Your task to perform on an android device: Search for Mexican restaurants on Maps Image 0: 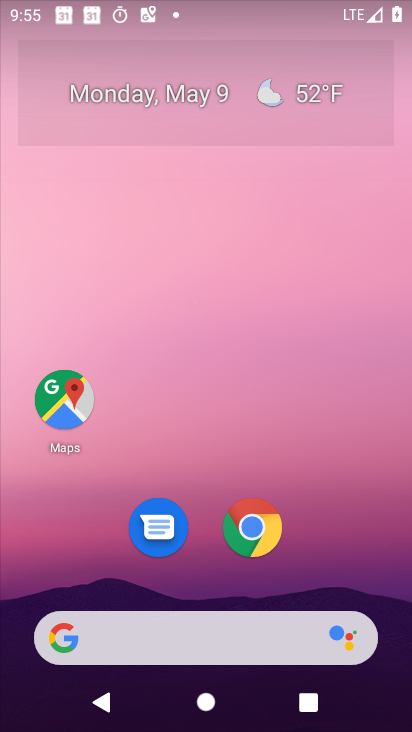
Step 0: drag from (353, 571) to (300, 147)
Your task to perform on an android device: Search for Mexican restaurants on Maps Image 1: 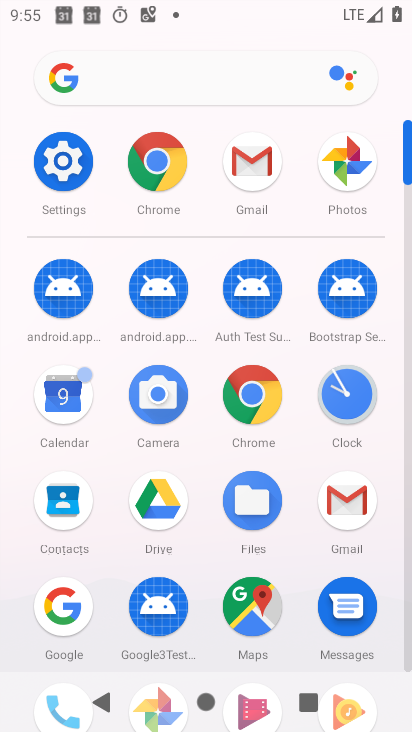
Step 1: click (268, 596)
Your task to perform on an android device: Search for Mexican restaurants on Maps Image 2: 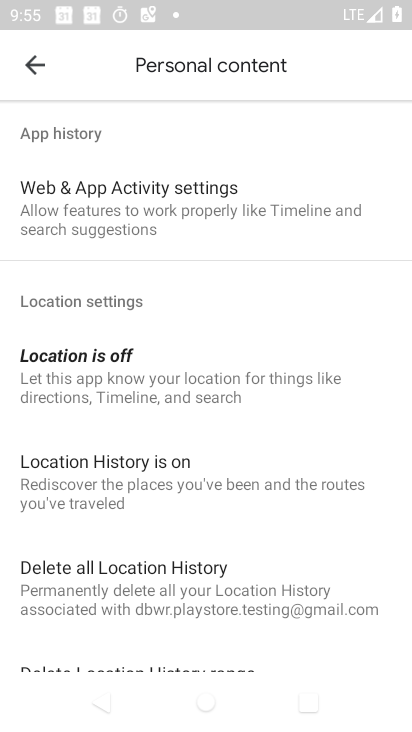
Step 2: click (43, 76)
Your task to perform on an android device: Search for Mexican restaurants on Maps Image 3: 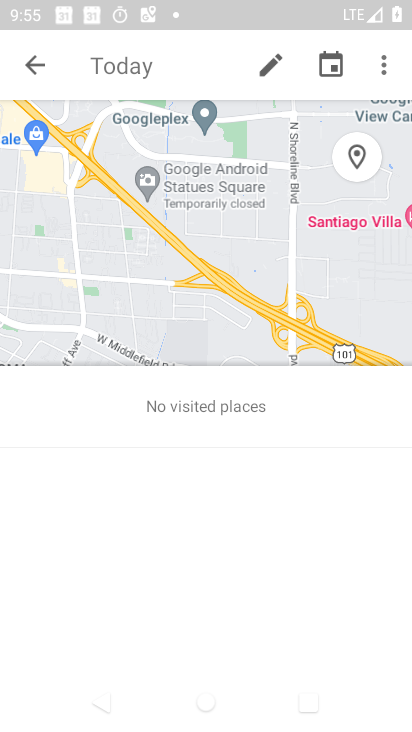
Step 3: click (35, 66)
Your task to perform on an android device: Search for Mexican restaurants on Maps Image 4: 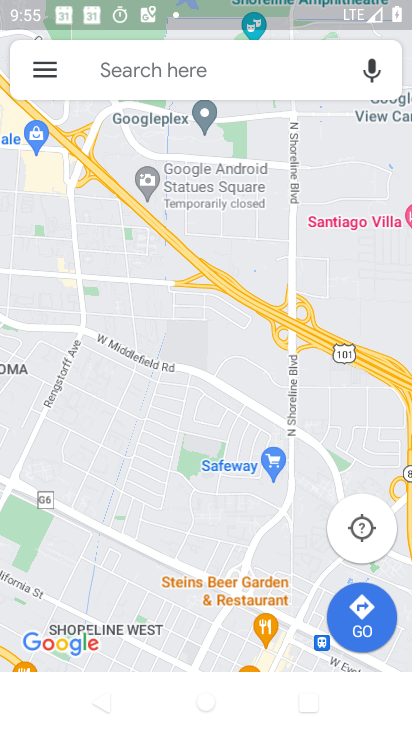
Step 4: click (156, 70)
Your task to perform on an android device: Search for Mexican restaurants on Maps Image 5: 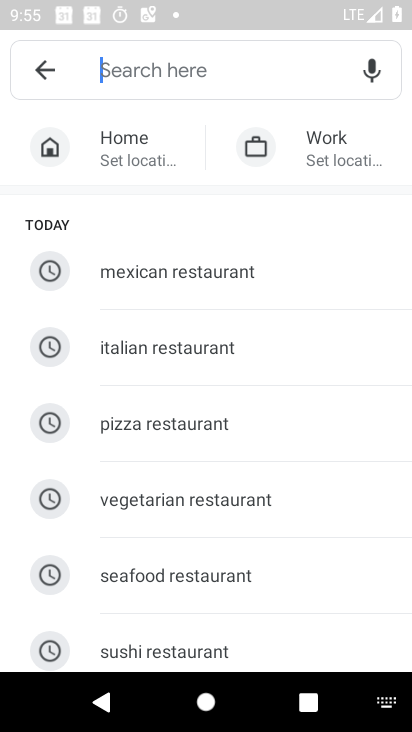
Step 5: click (255, 274)
Your task to perform on an android device: Search for Mexican restaurants on Maps Image 6: 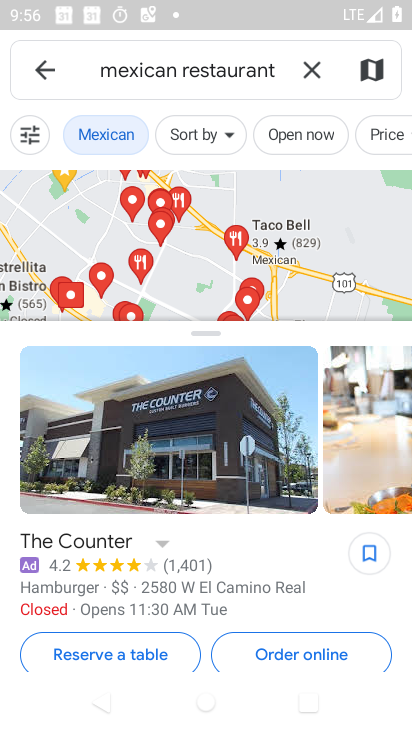
Step 6: task complete